Your task to perform on an android device: set default search engine in the chrome app Image 0: 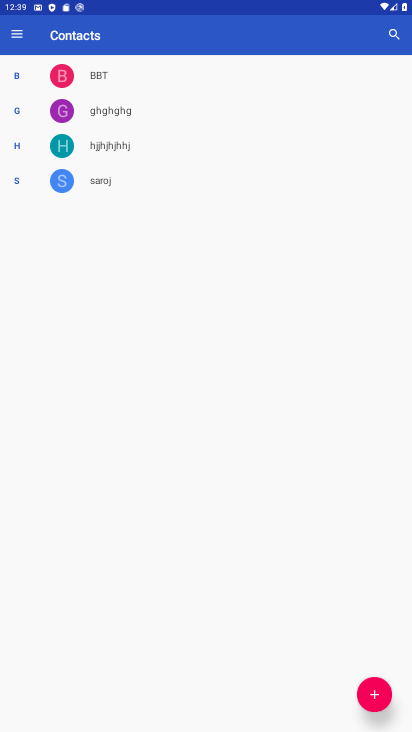
Step 0: press home button
Your task to perform on an android device: set default search engine in the chrome app Image 1: 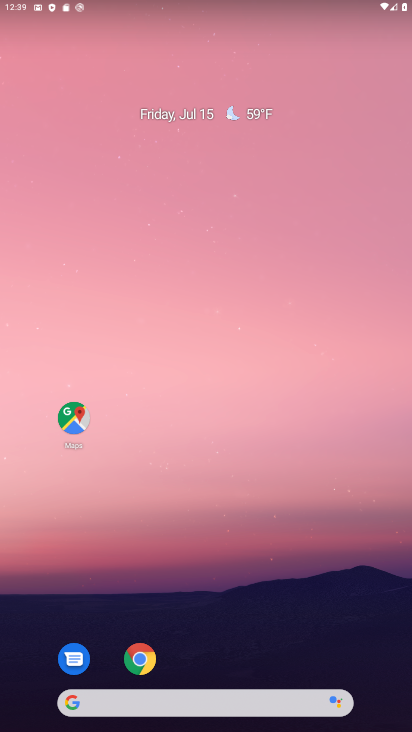
Step 1: click (145, 661)
Your task to perform on an android device: set default search engine in the chrome app Image 2: 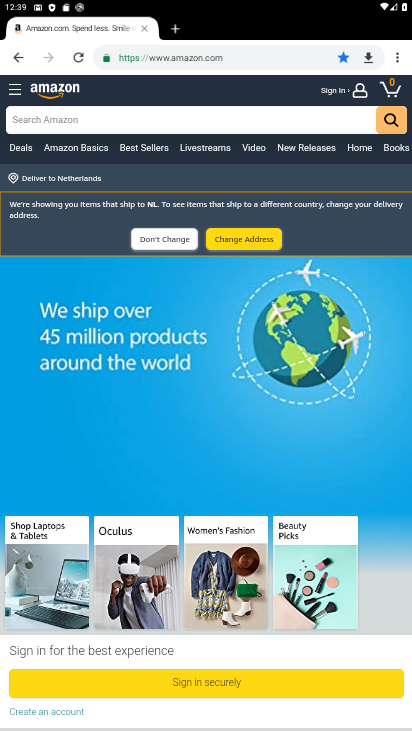
Step 2: click (398, 63)
Your task to perform on an android device: set default search engine in the chrome app Image 3: 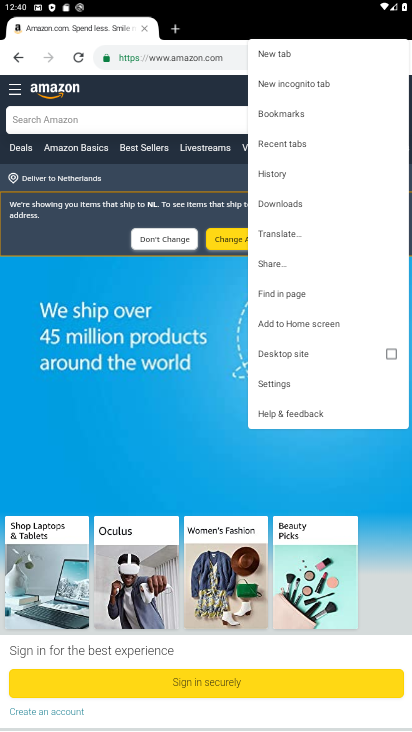
Step 3: click (280, 379)
Your task to perform on an android device: set default search engine in the chrome app Image 4: 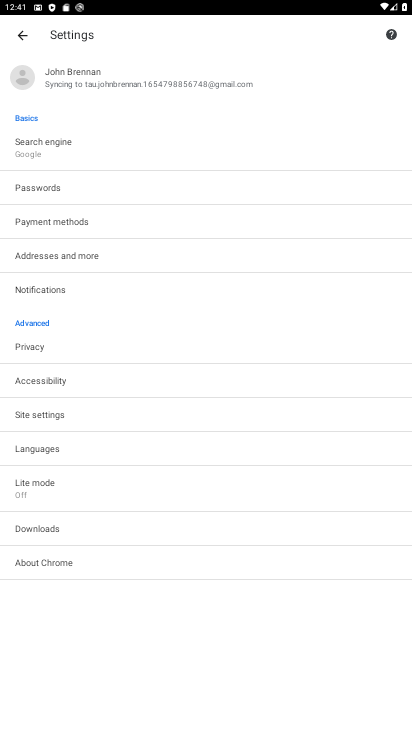
Step 4: click (45, 145)
Your task to perform on an android device: set default search engine in the chrome app Image 5: 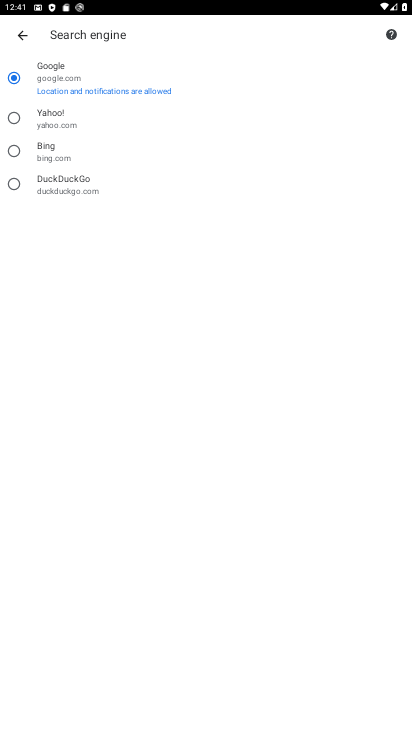
Step 5: click (17, 122)
Your task to perform on an android device: set default search engine in the chrome app Image 6: 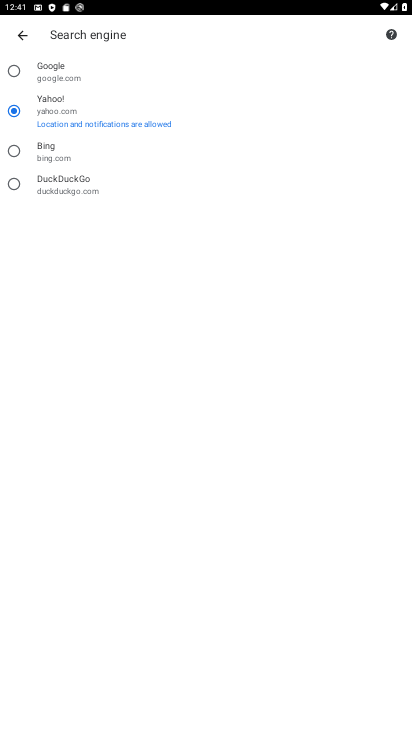
Step 6: task complete